Your task to perform on an android device: Check the weather Image 0: 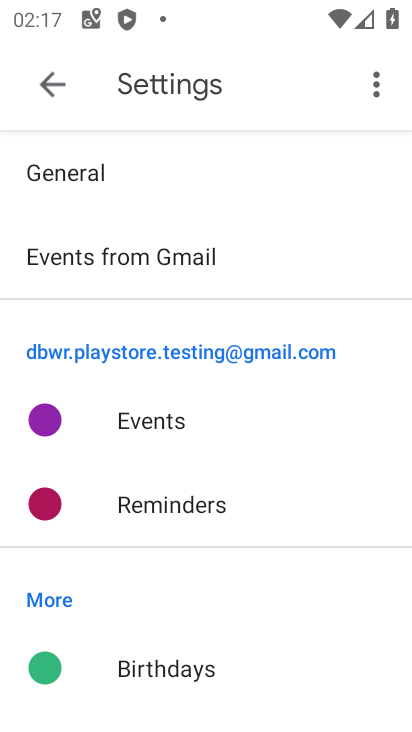
Step 0: press home button
Your task to perform on an android device: Check the weather Image 1: 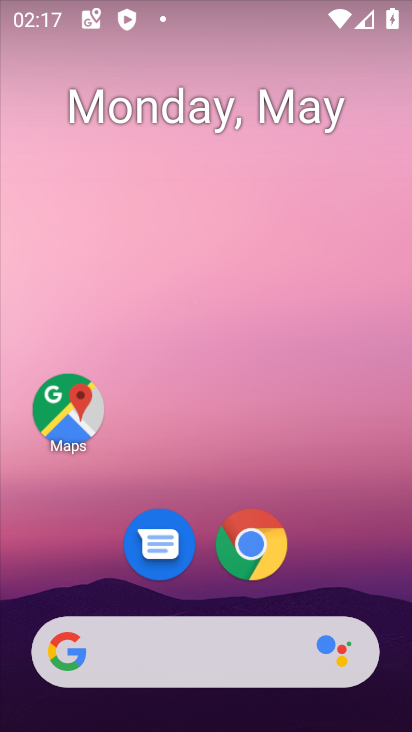
Step 1: click (197, 651)
Your task to perform on an android device: Check the weather Image 2: 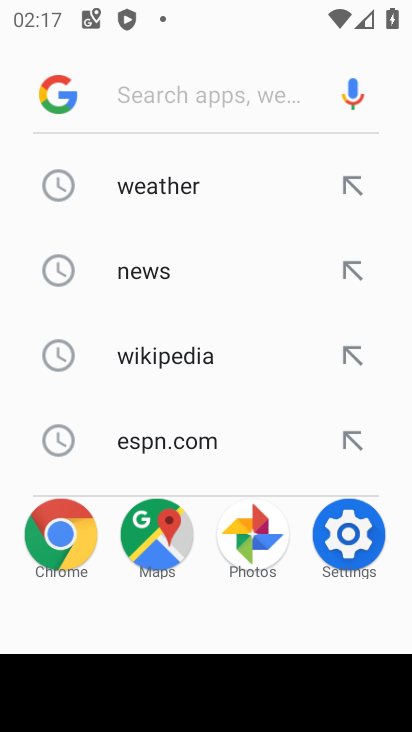
Step 2: click (187, 191)
Your task to perform on an android device: Check the weather Image 3: 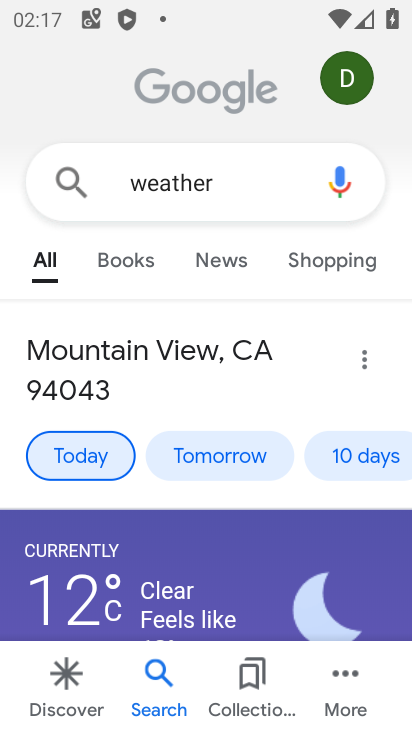
Step 3: task complete